Your task to perform on an android device: clear all cookies in the chrome app Image 0: 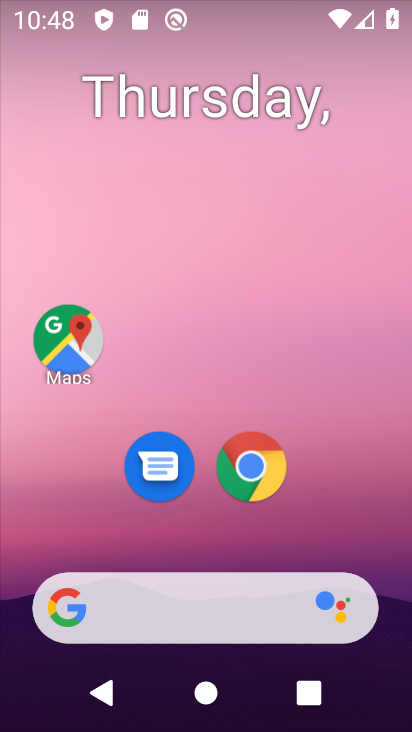
Step 0: click (251, 445)
Your task to perform on an android device: clear all cookies in the chrome app Image 1: 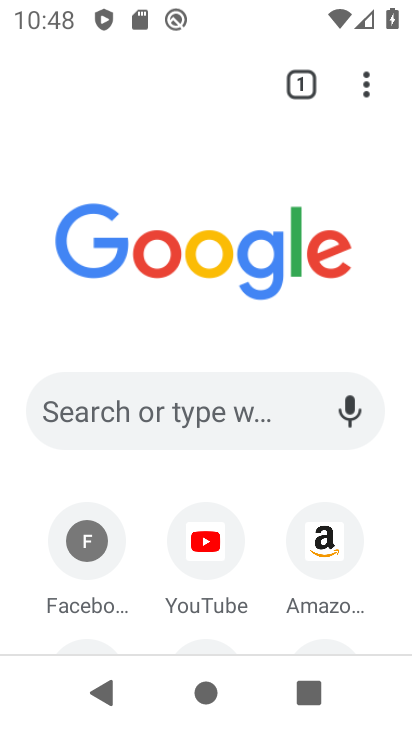
Step 1: click (368, 88)
Your task to perform on an android device: clear all cookies in the chrome app Image 2: 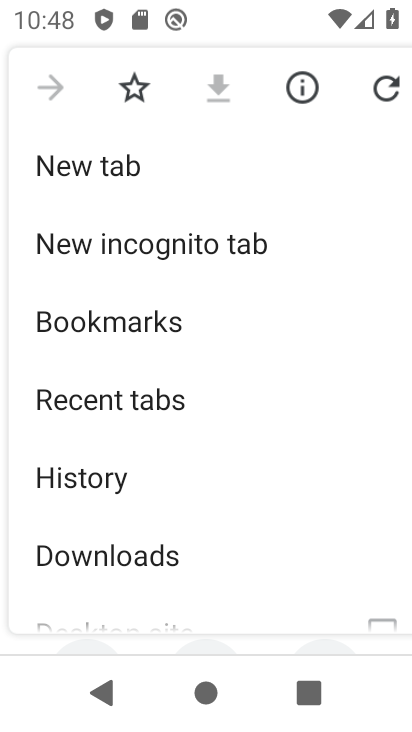
Step 2: click (83, 485)
Your task to perform on an android device: clear all cookies in the chrome app Image 3: 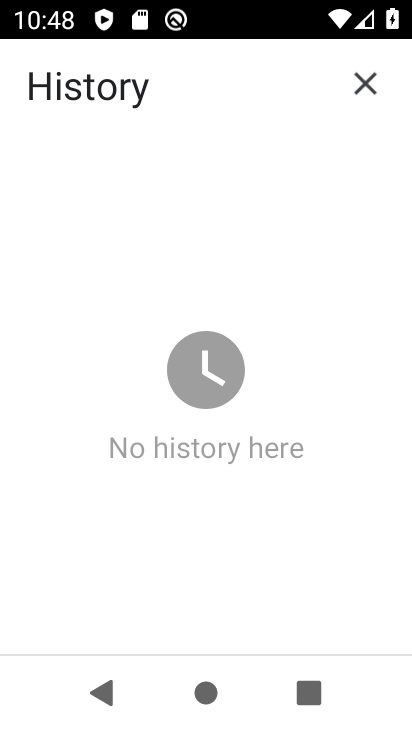
Step 3: task complete